Your task to perform on an android device: empty trash in google photos Image 0: 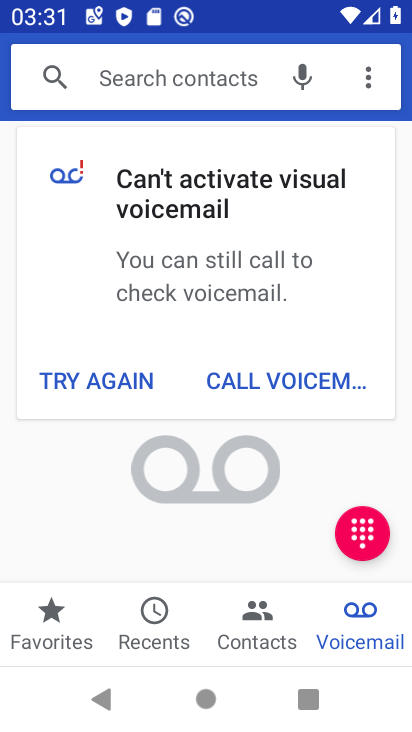
Step 0: press home button
Your task to perform on an android device: empty trash in google photos Image 1: 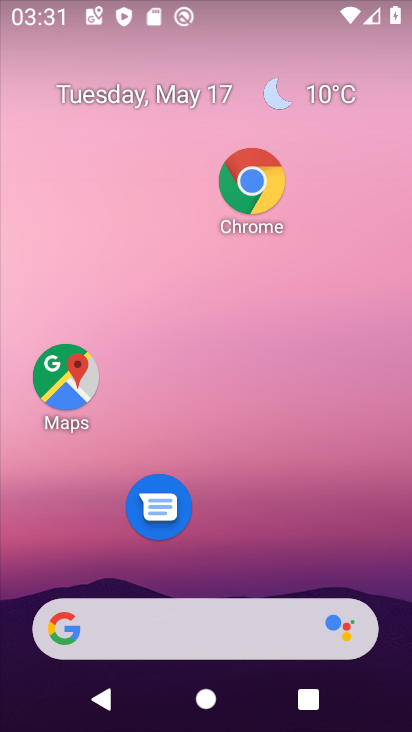
Step 1: drag from (204, 544) to (219, 149)
Your task to perform on an android device: empty trash in google photos Image 2: 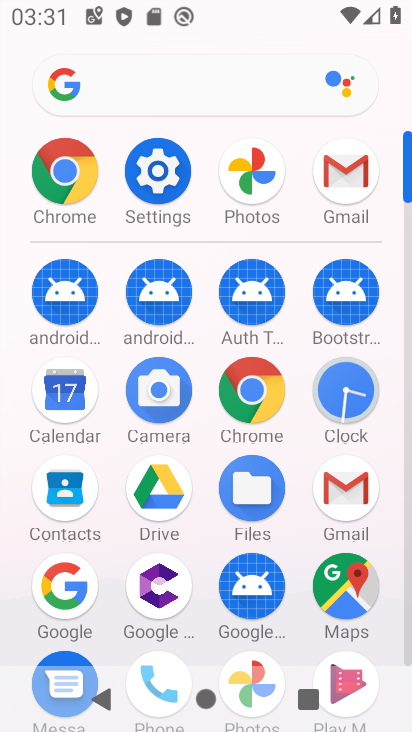
Step 2: click (258, 148)
Your task to perform on an android device: empty trash in google photos Image 3: 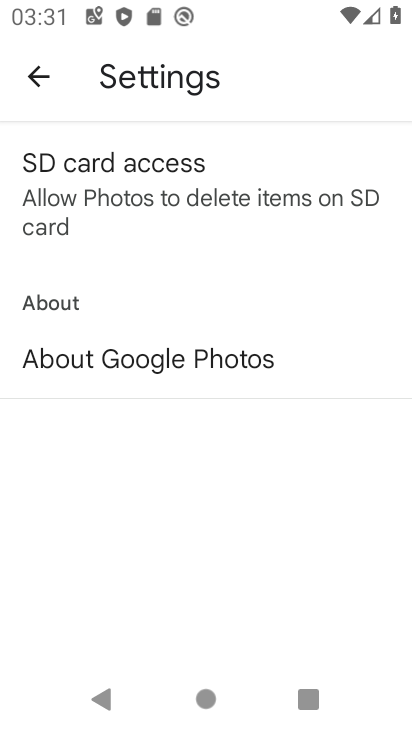
Step 3: click (48, 72)
Your task to perform on an android device: empty trash in google photos Image 4: 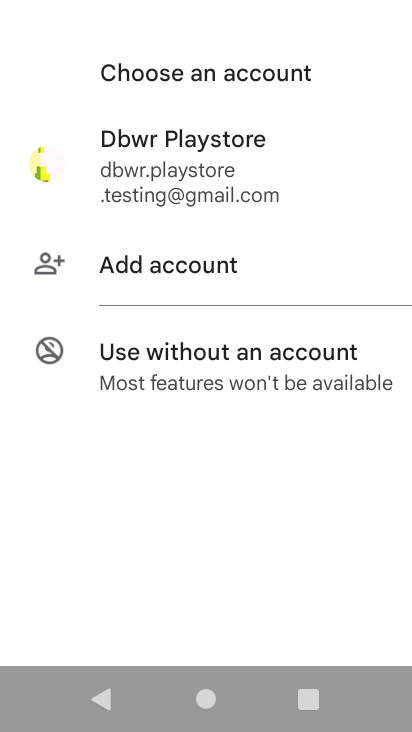
Step 4: click (183, 194)
Your task to perform on an android device: empty trash in google photos Image 5: 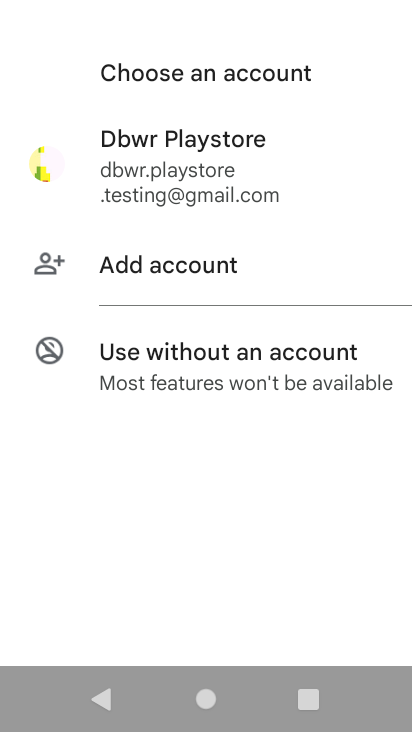
Step 5: click (183, 194)
Your task to perform on an android device: empty trash in google photos Image 6: 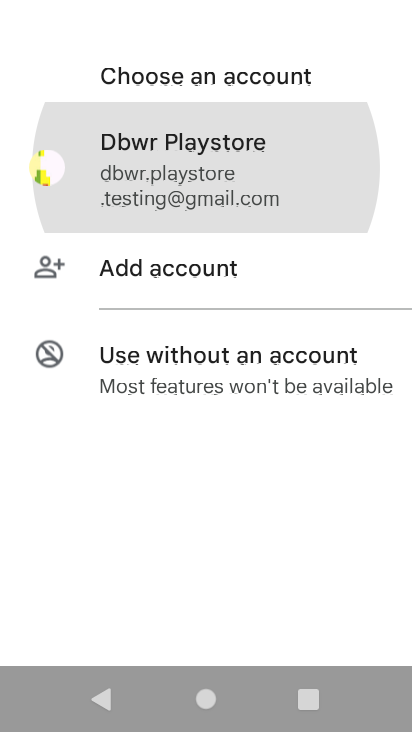
Step 6: click (183, 194)
Your task to perform on an android device: empty trash in google photos Image 7: 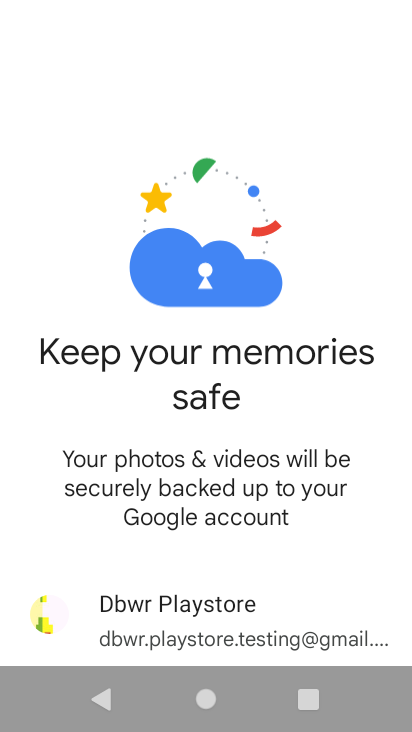
Step 7: click (157, 584)
Your task to perform on an android device: empty trash in google photos Image 8: 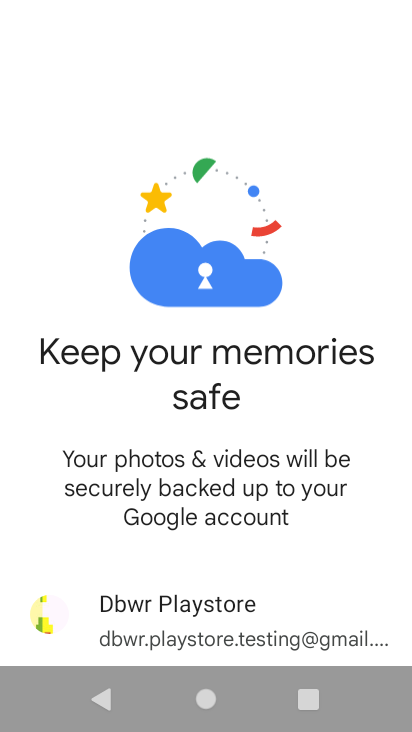
Step 8: drag from (215, 608) to (75, 444)
Your task to perform on an android device: empty trash in google photos Image 9: 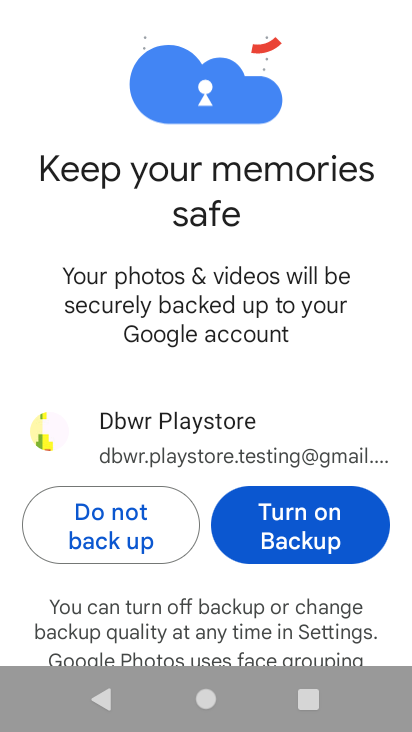
Step 9: click (313, 491)
Your task to perform on an android device: empty trash in google photos Image 10: 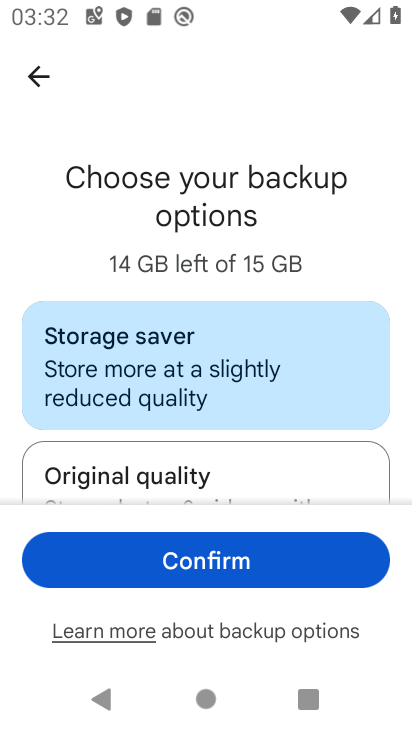
Step 10: click (196, 539)
Your task to perform on an android device: empty trash in google photos Image 11: 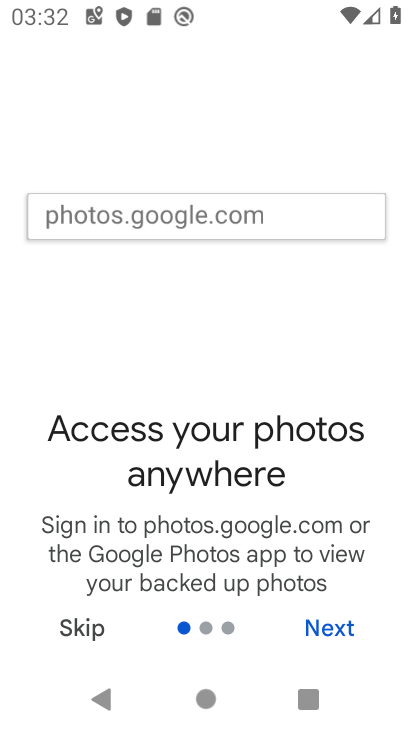
Step 11: click (351, 622)
Your task to perform on an android device: empty trash in google photos Image 12: 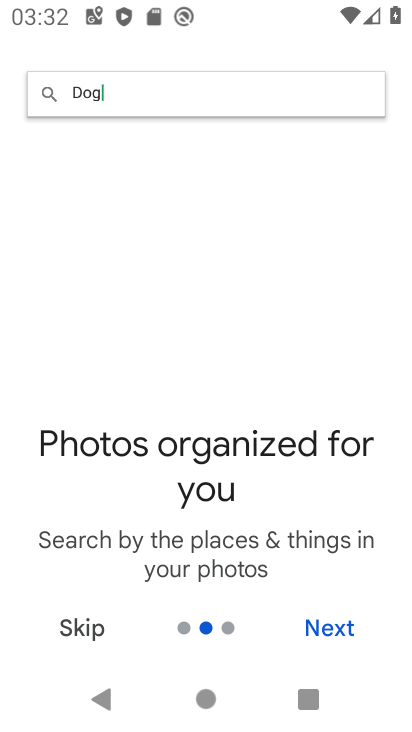
Step 12: click (351, 622)
Your task to perform on an android device: empty trash in google photos Image 13: 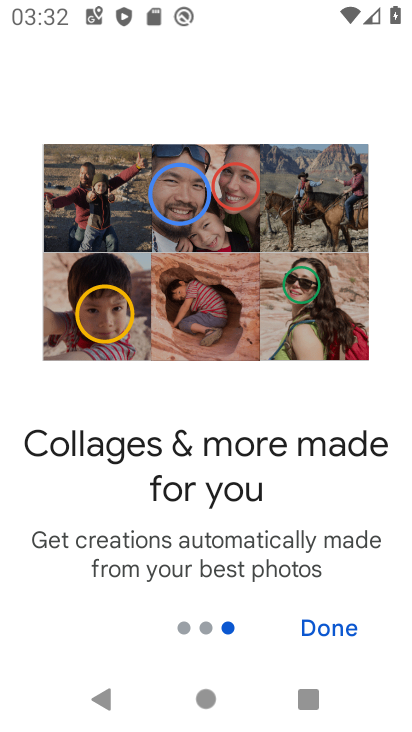
Step 13: click (351, 622)
Your task to perform on an android device: empty trash in google photos Image 14: 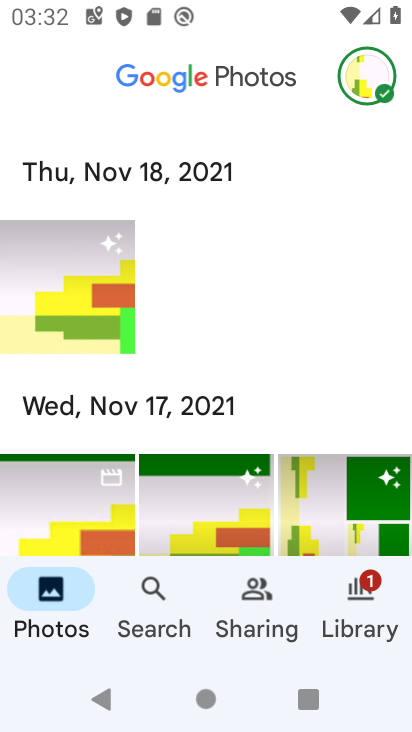
Step 14: click (379, 62)
Your task to perform on an android device: empty trash in google photos Image 15: 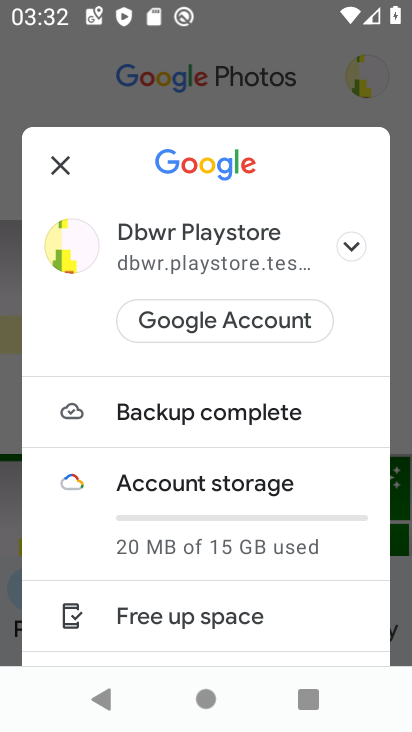
Step 15: drag from (158, 552) to (216, 99)
Your task to perform on an android device: empty trash in google photos Image 16: 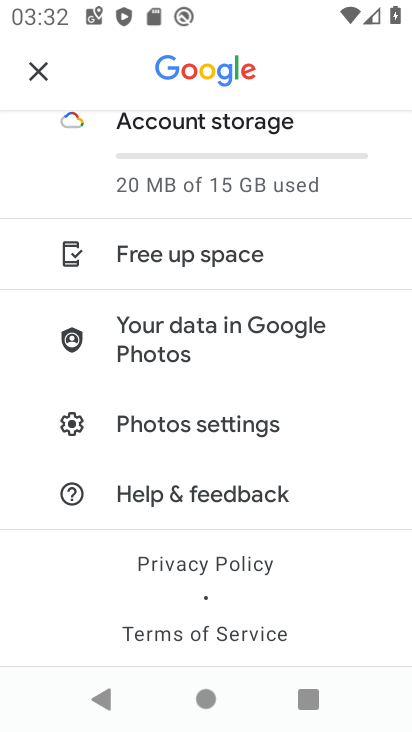
Step 16: press back button
Your task to perform on an android device: empty trash in google photos Image 17: 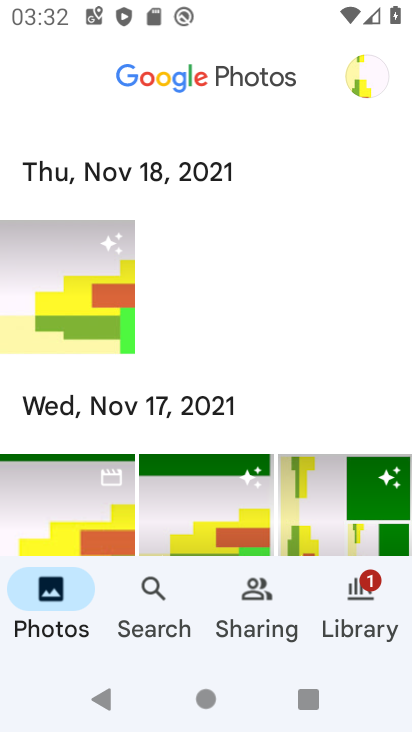
Step 17: click (341, 583)
Your task to perform on an android device: empty trash in google photos Image 18: 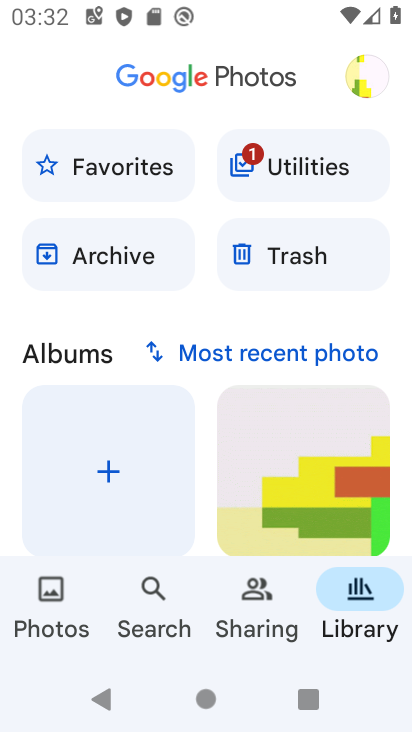
Step 18: click (278, 245)
Your task to perform on an android device: empty trash in google photos Image 19: 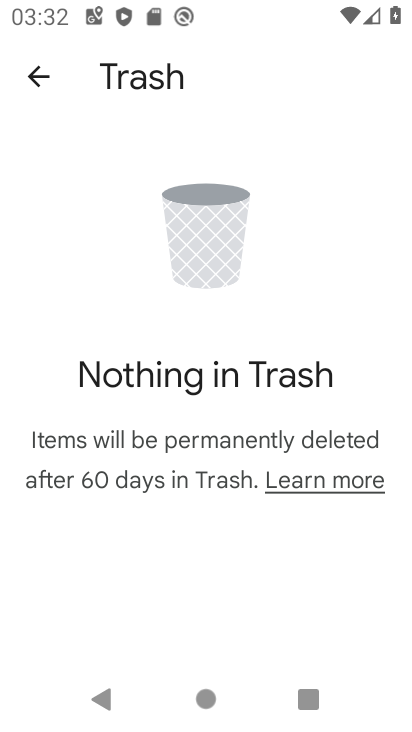
Step 19: task complete